Your task to perform on an android device: Open Youtube and go to "Your channel" Image 0: 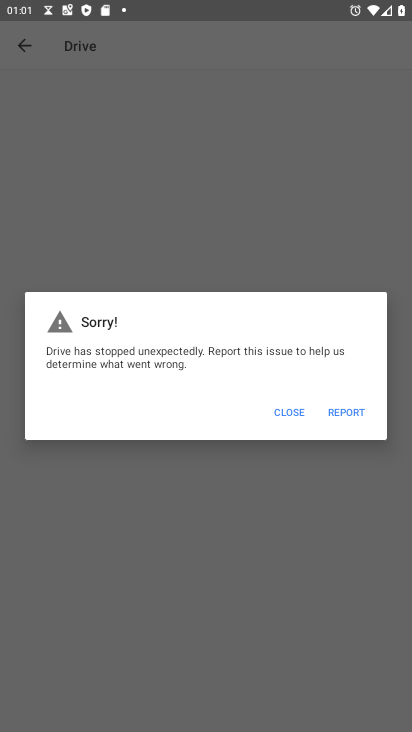
Step 0: press home button
Your task to perform on an android device: Open Youtube and go to "Your channel" Image 1: 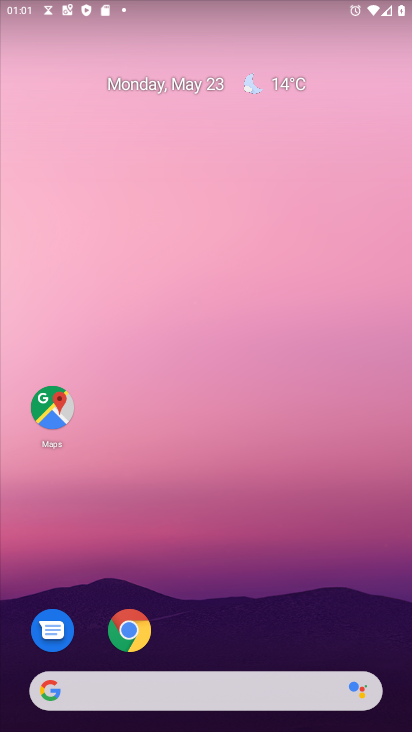
Step 1: drag from (304, 476) to (250, 15)
Your task to perform on an android device: Open Youtube and go to "Your channel" Image 2: 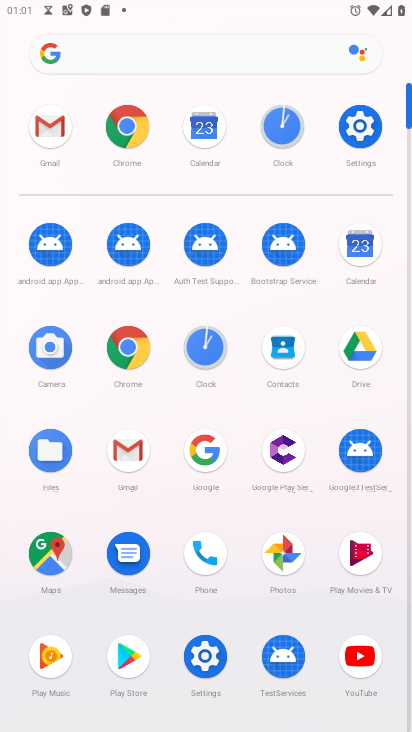
Step 2: click (363, 649)
Your task to perform on an android device: Open Youtube and go to "Your channel" Image 3: 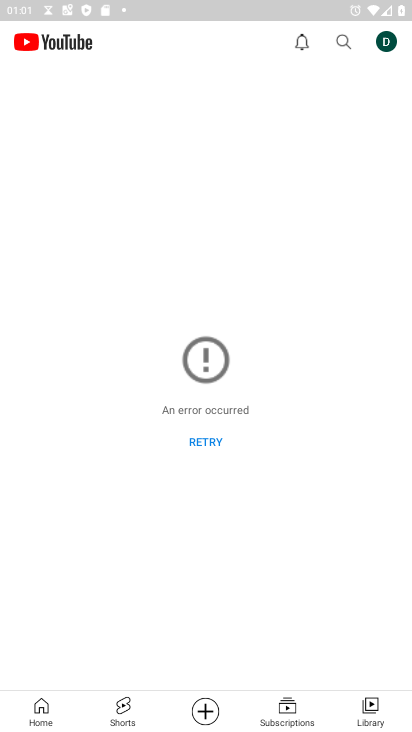
Step 3: click (384, 39)
Your task to perform on an android device: Open Youtube and go to "Your channel" Image 4: 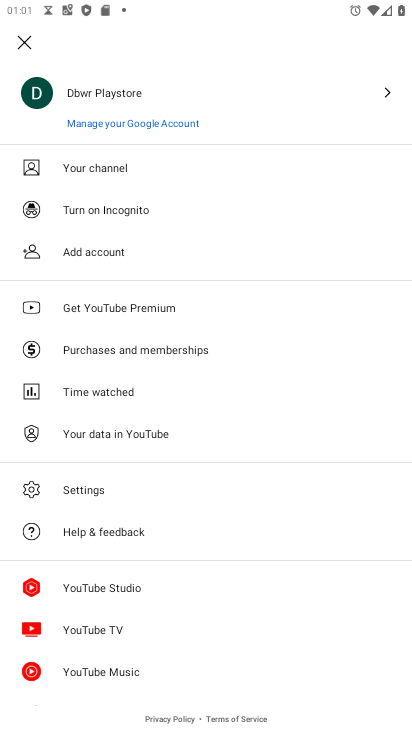
Step 4: click (97, 157)
Your task to perform on an android device: Open Youtube and go to "Your channel" Image 5: 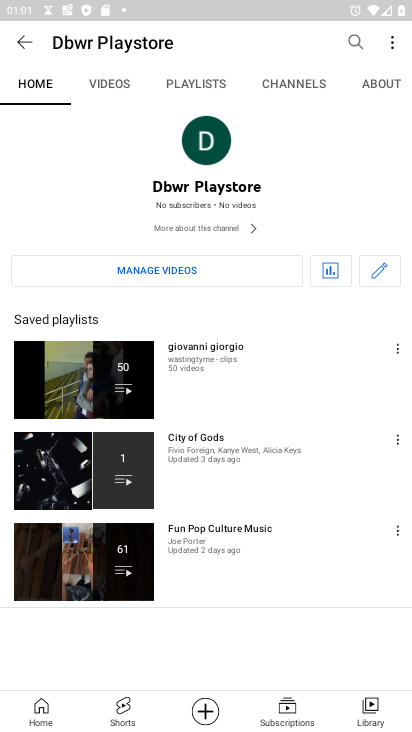
Step 5: task complete